Your task to perform on an android device: check android version Image 0: 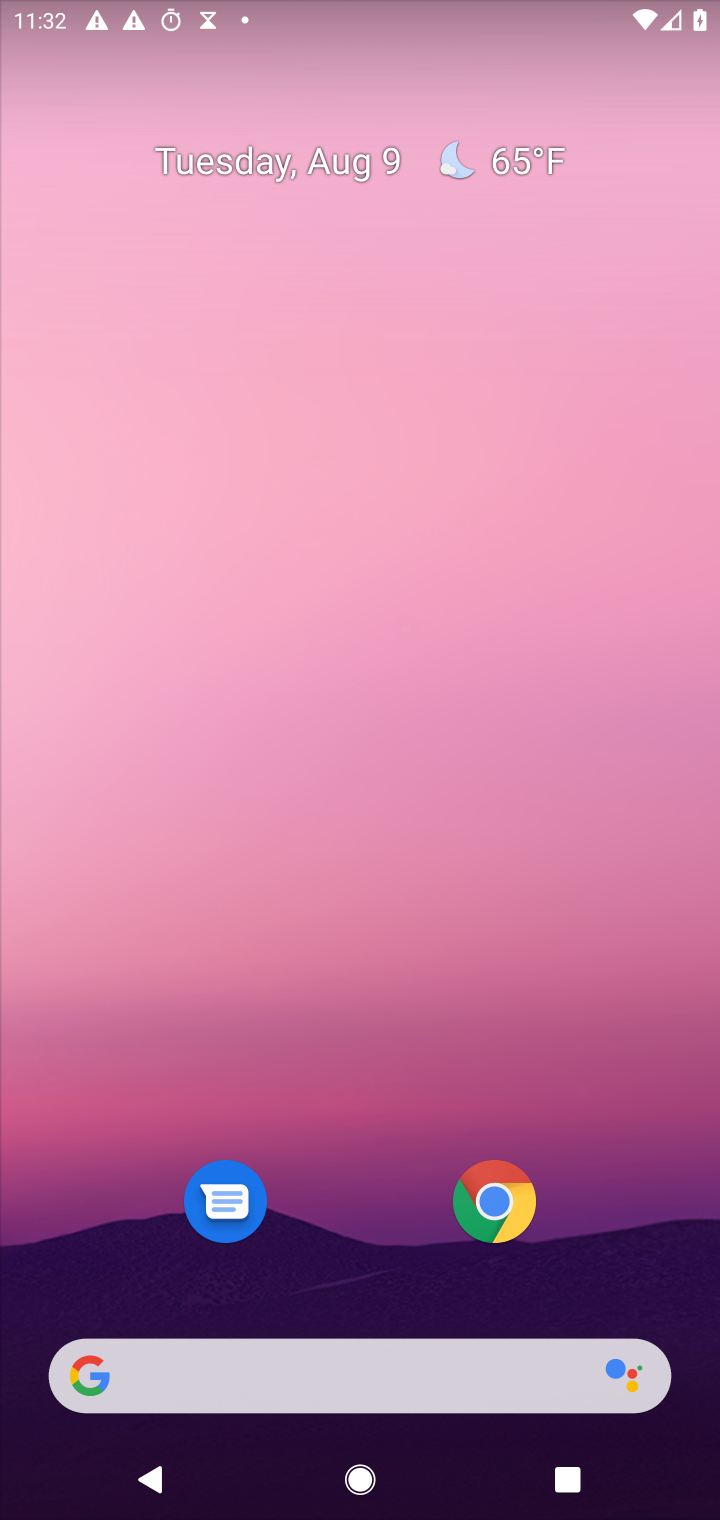
Step 0: press home button
Your task to perform on an android device: check android version Image 1: 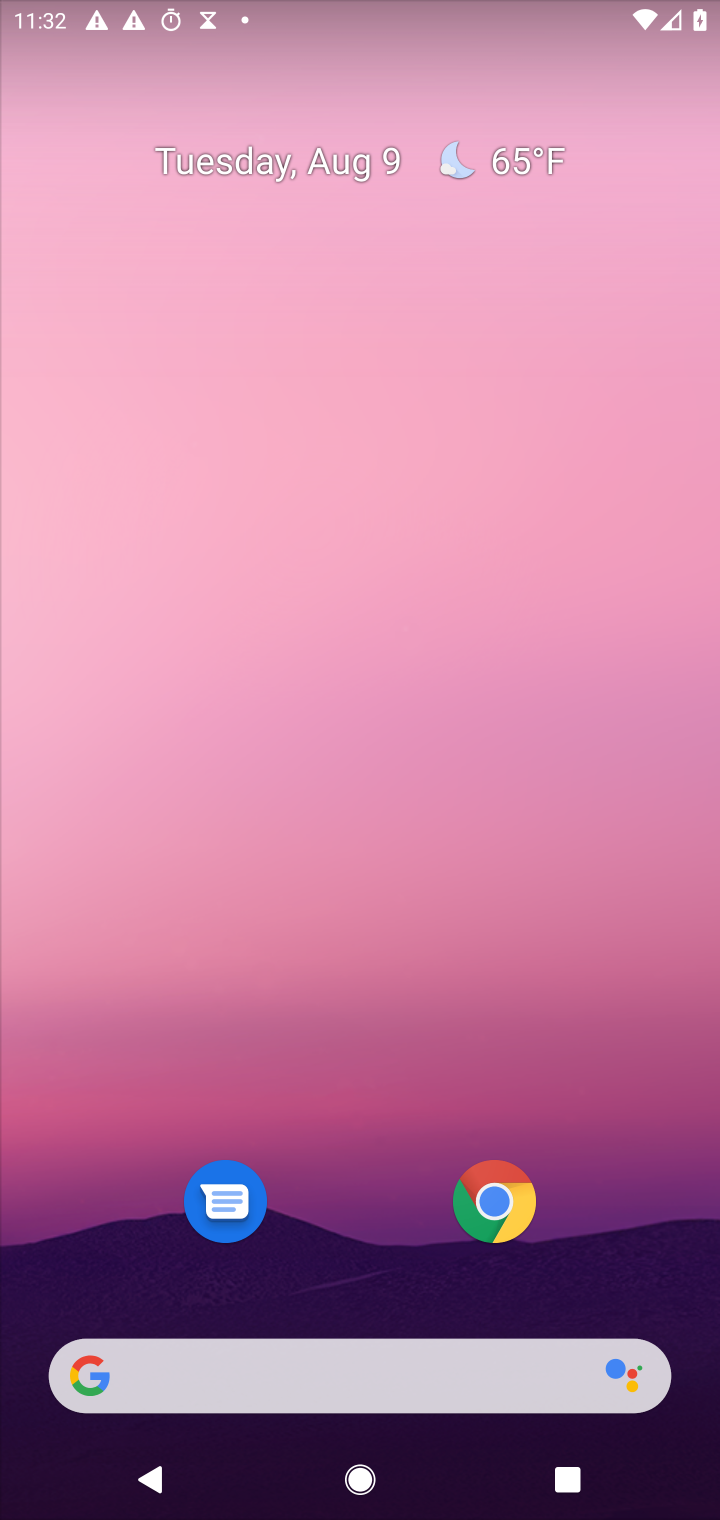
Step 1: drag from (296, 1106) to (713, 759)
Your task to perform on an android device: check android version Image 2: 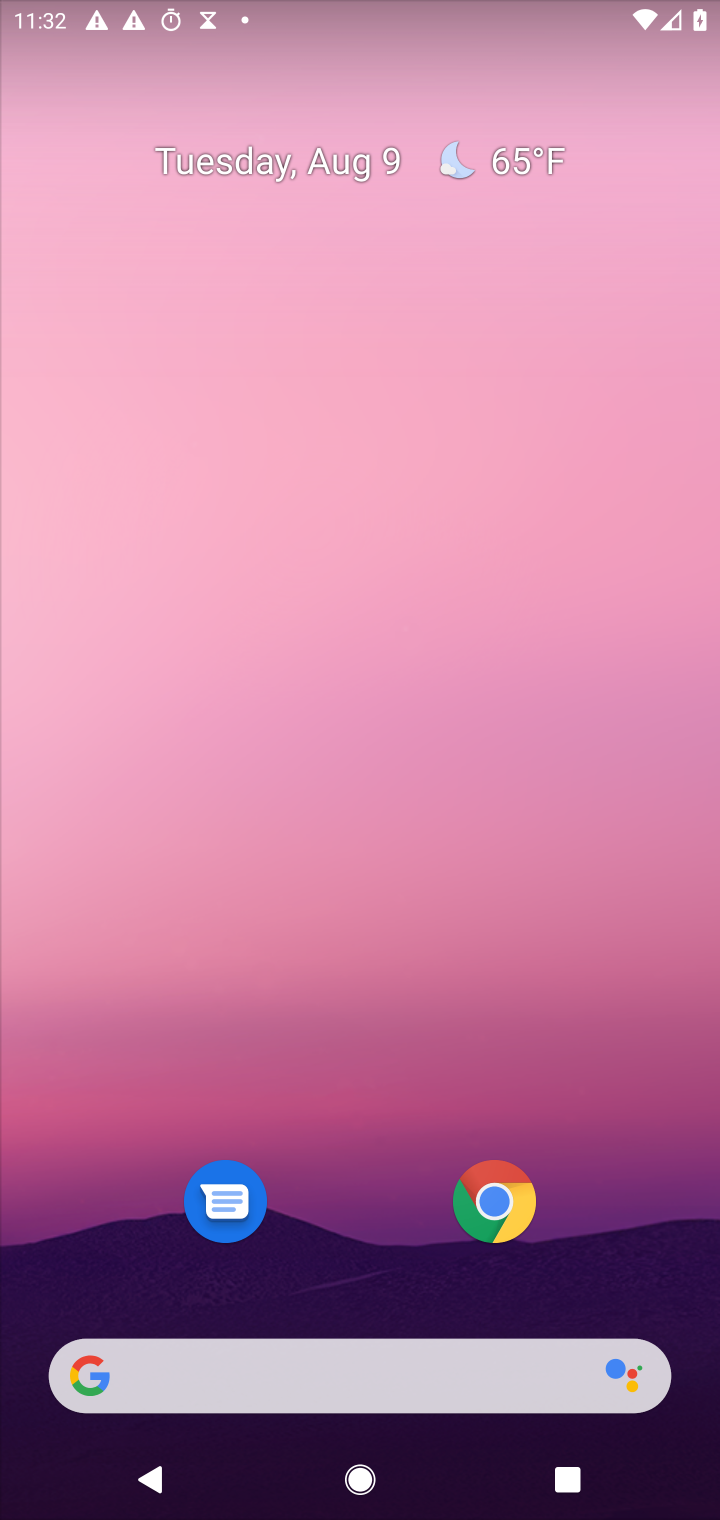
Step 2: drag from (358, 1091) to (685, 279)
Your task to perform on an android device: check android version Image 3: 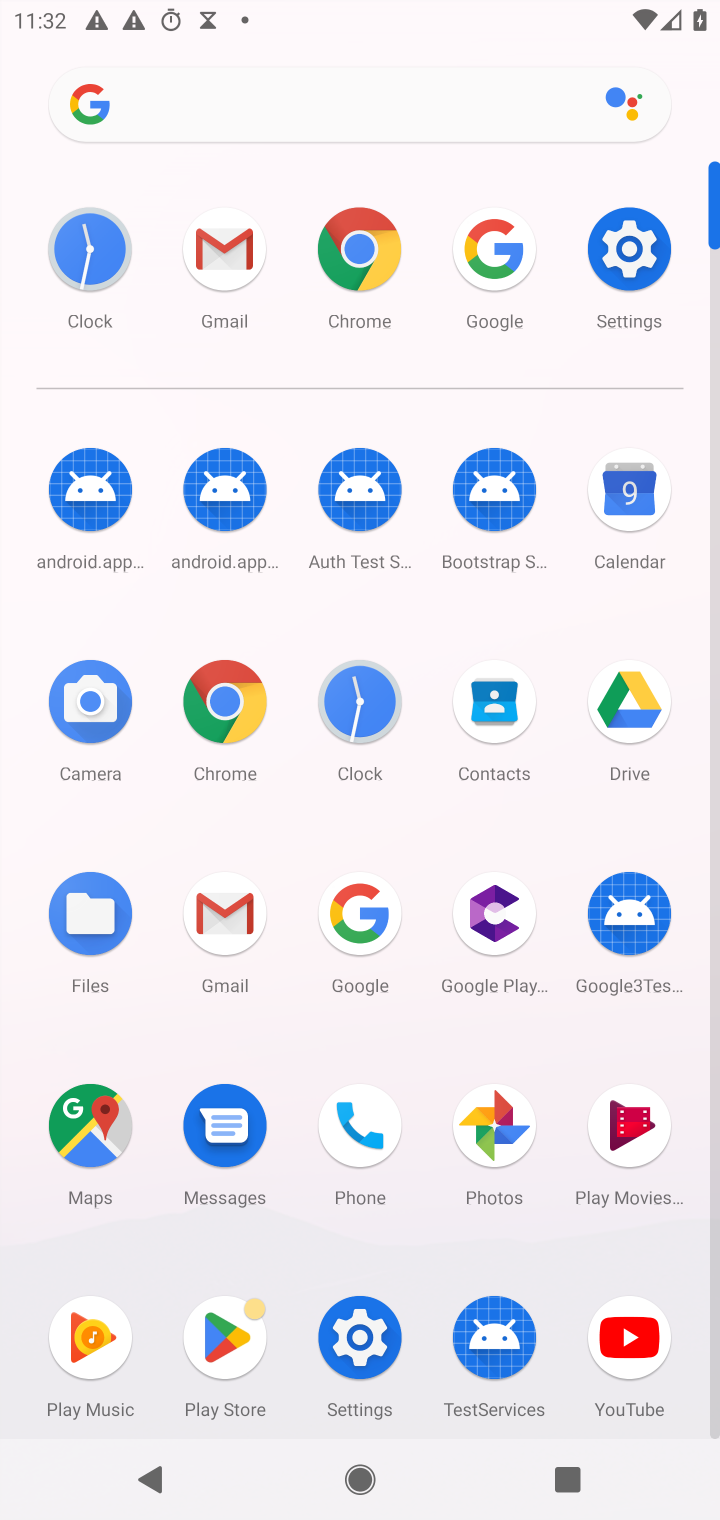
Step 3: click (604, 225)
Your task to perform on an android device: check android version Image 4: 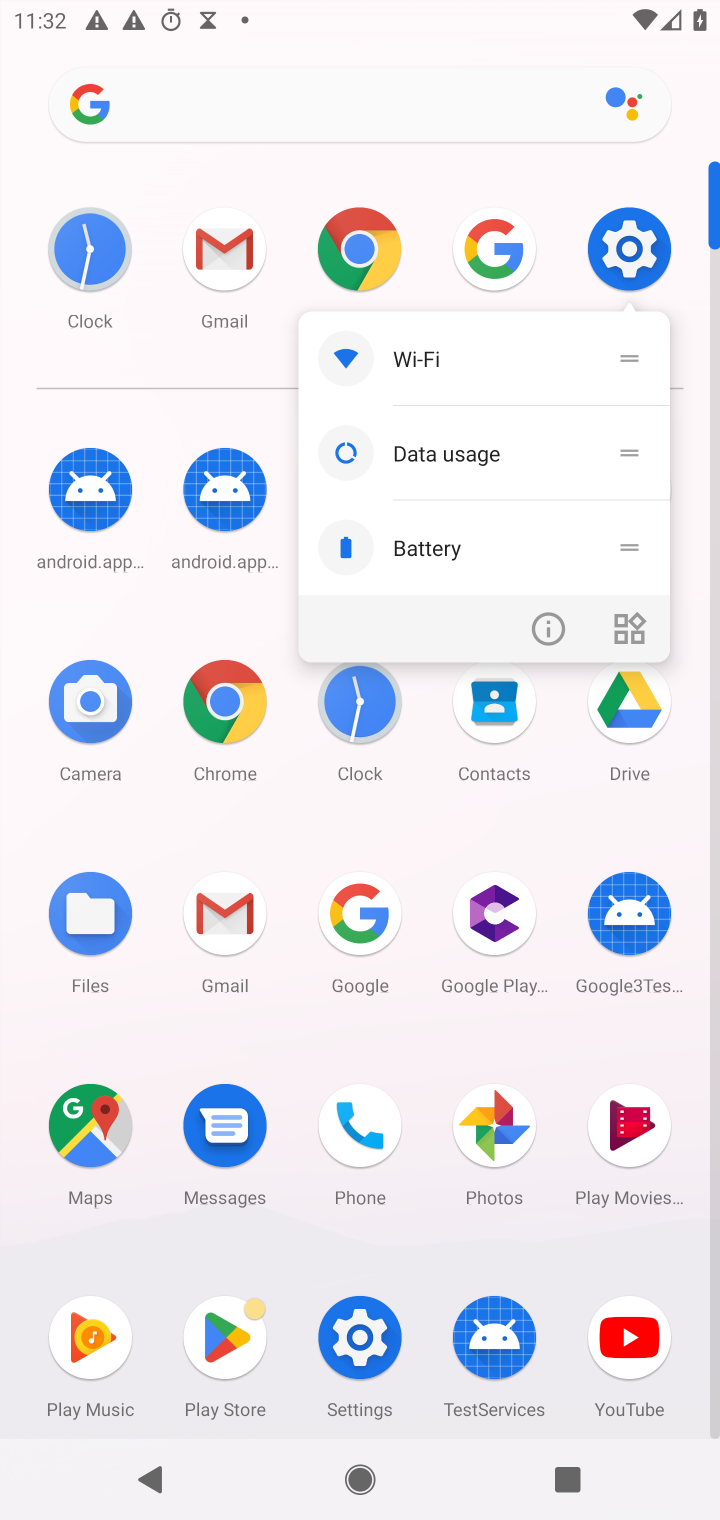
Step 4: click (629, 248)
Your task to perform on an android device: check android version Image 5: 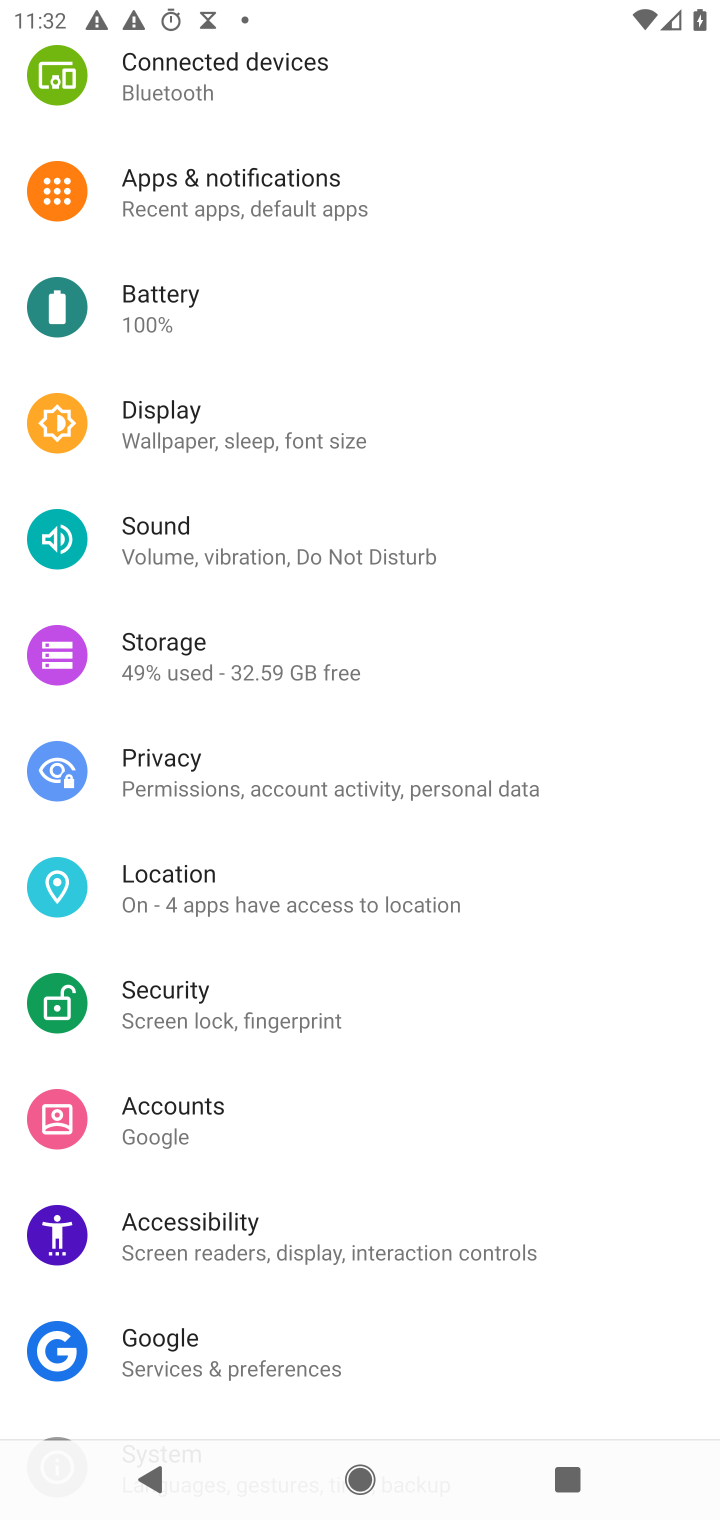
Step 5: drag from (213, 1312) to (355, 270)
Your task to perform on an android device: check android version Image 6: 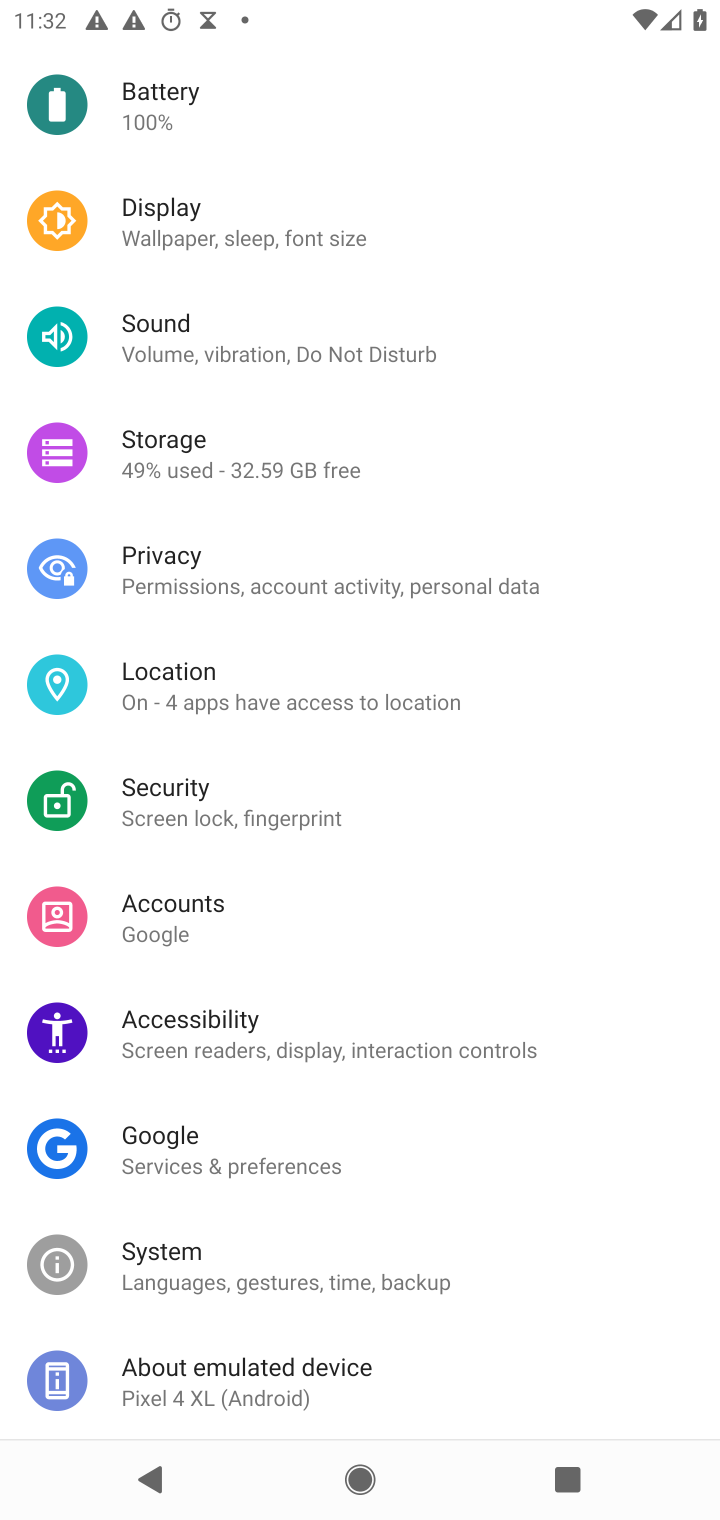
Step 6: click (174, 1379)
Your task to perform on an android device: check android version Image 7: 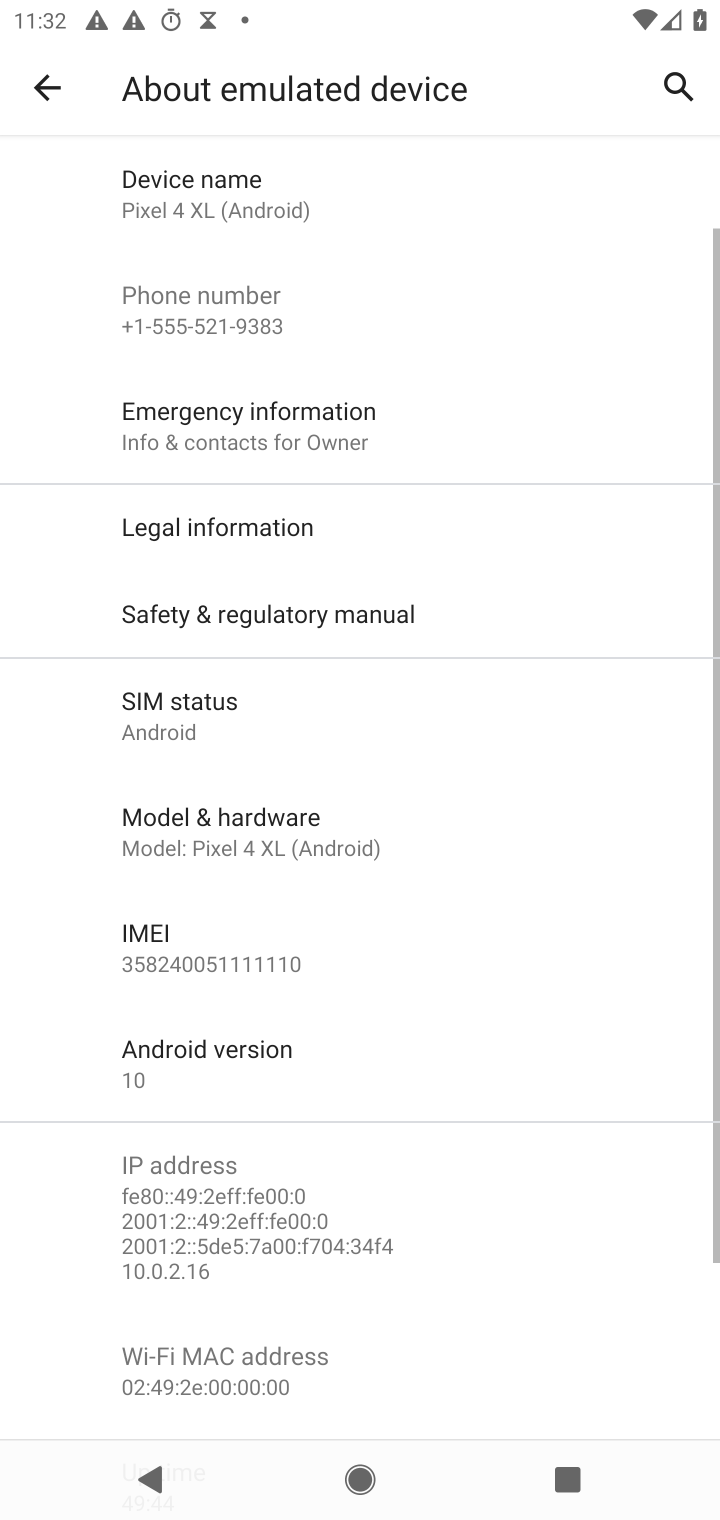
Step 7: click (228, 1080)
Your task to perform on an android device: check android version Image 8: 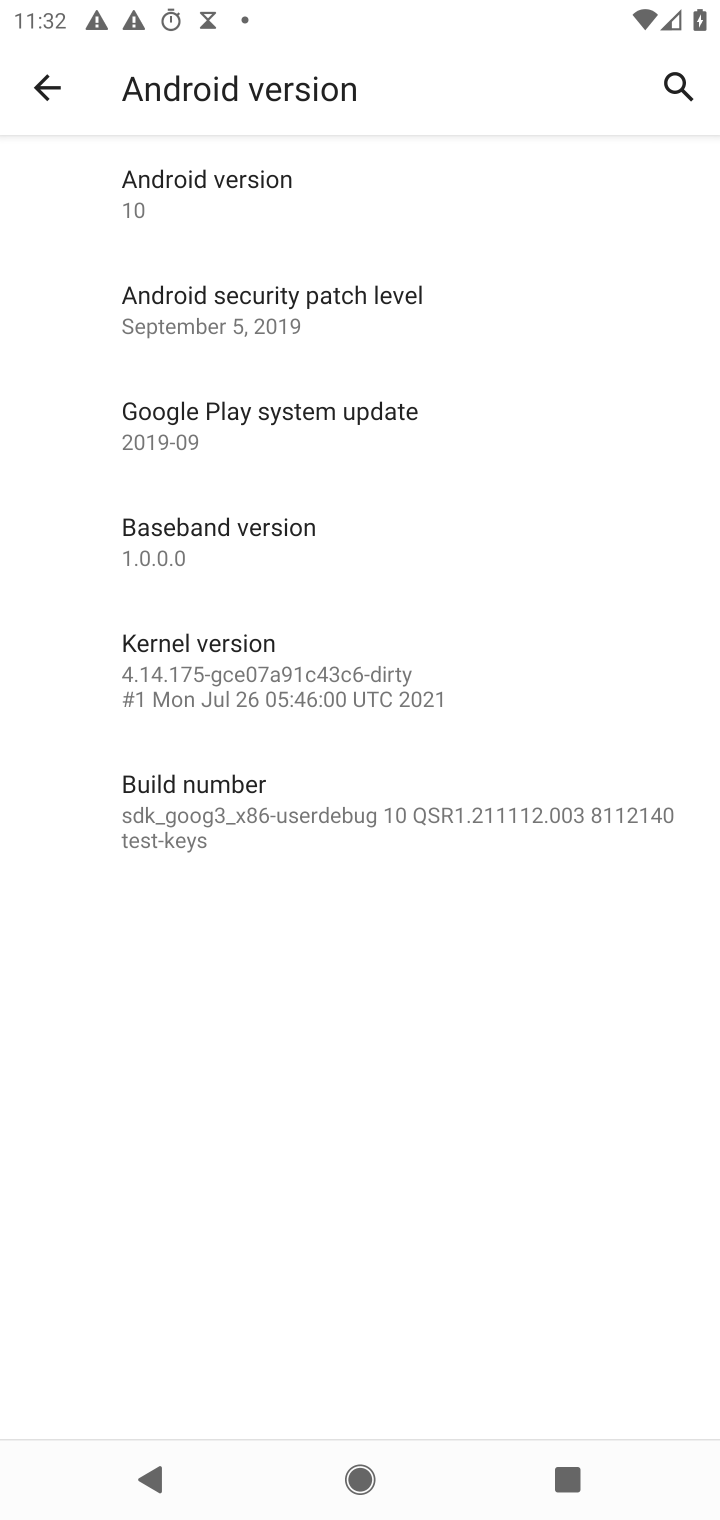
Step 8: task complete